Your task to perform on an android device: turn vacation reply on in the gmail app Image 0: 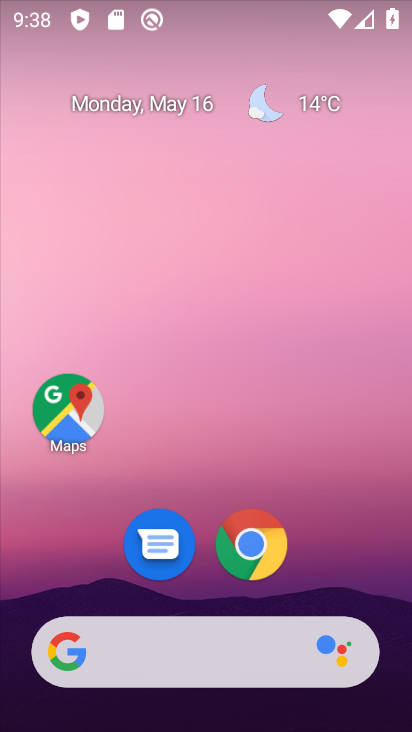
Step 0: drag from (328, 574) to (391, 110)
Your task to perform on an android device: turn vacation reply on in the gmail app Image 1: 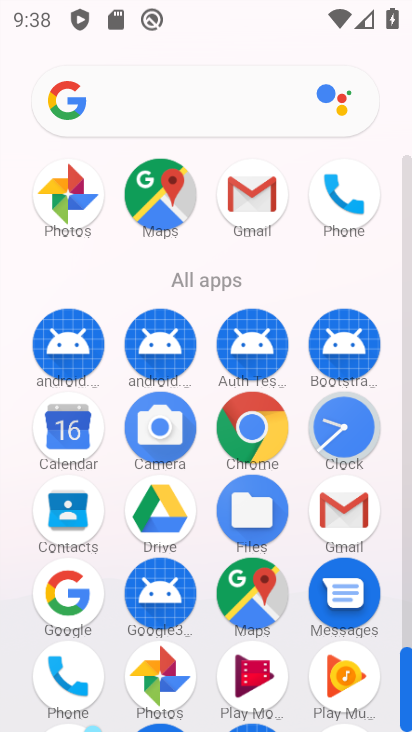
Step 1: click (248, 209)
Your task to perform on an android device: turn vacation reply on in the gmail app Image 2: 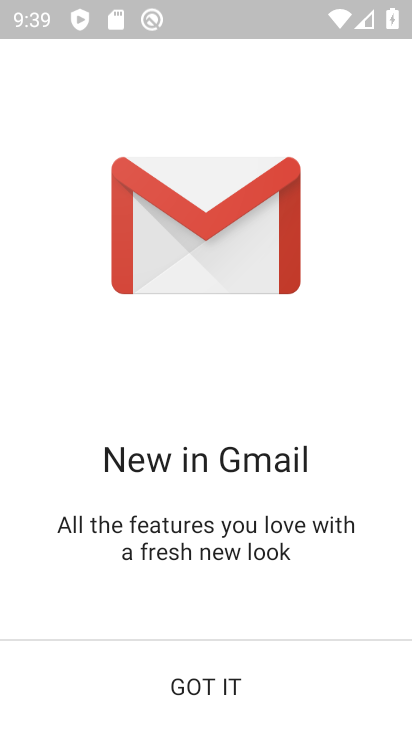
Step 2: click (213, 687)
Your task to perform on an android device: turn vacation reply on in the gmail app Image 3: 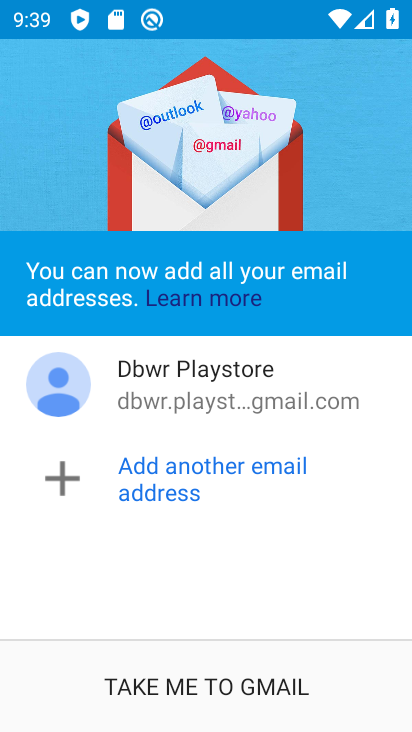
Step 3: click (214, 686)
Your task to perform on an android device: turn vacation reply on in the gmail app Image 4: 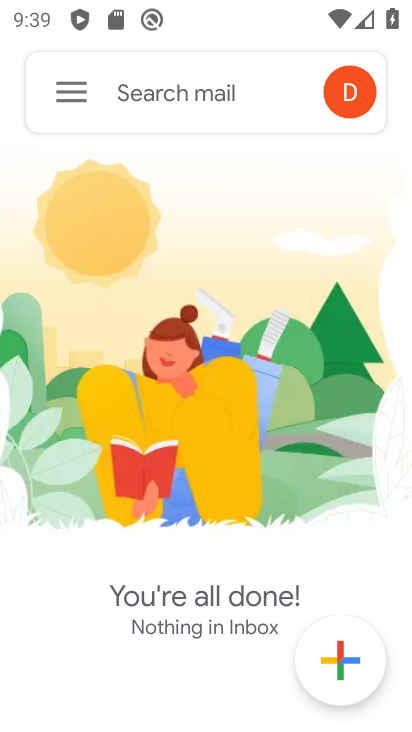
Step 4: click (76, 96)
Your task to perform on an android device: turn vacation reply on in the gmail app Image 5: 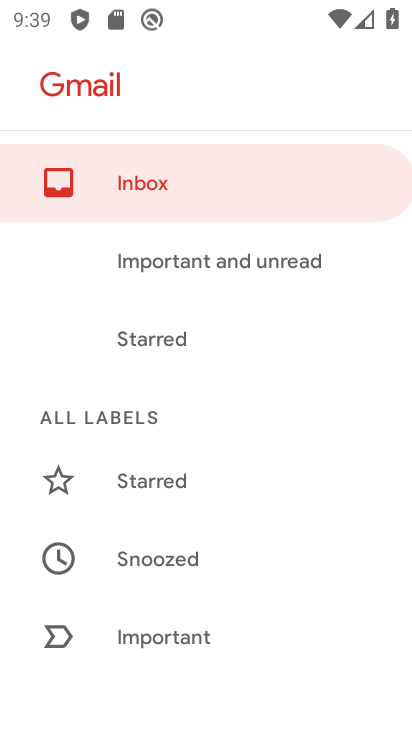
Step 5: drag from (137, 643) to (173, 165)
Your task to perform on an android device: turn vacation reply on in the gmail app Image 6: 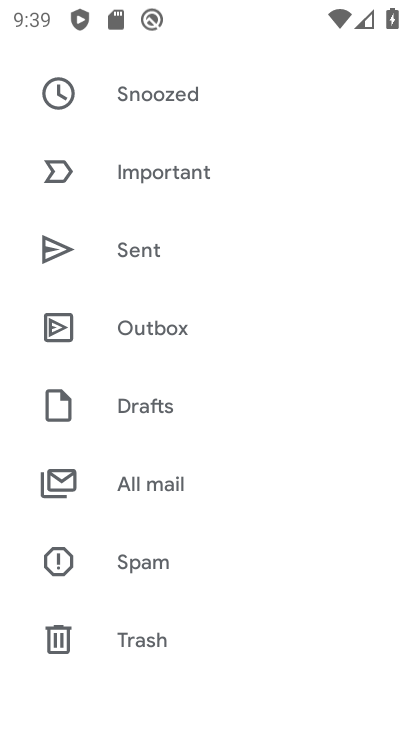
Step 6: drag from (161, 622) to (219, 234)
Your task to perform on an android device: turn vacation reply on in the gmail app Image 7: 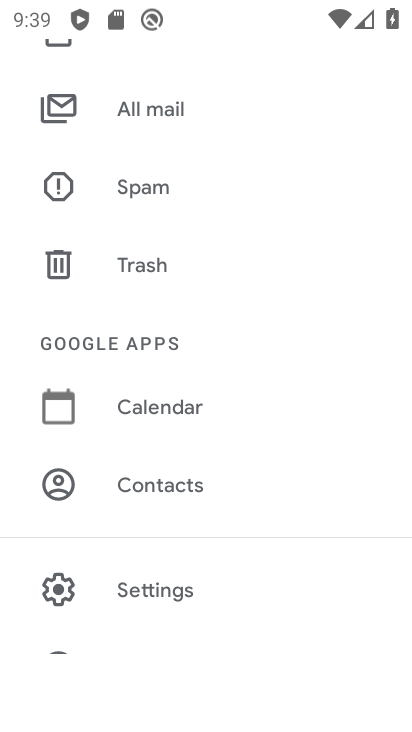
Step 7: click (165, 586)
Your task to perform on an android device: turn vacation reply on in the gmail app Image 8: 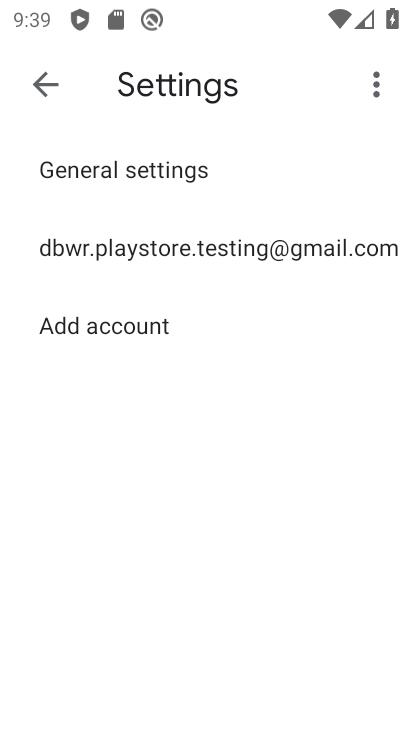
Step 8: click (121, 253)
Your task to perform on an android device: turn vacation reply on in the gmail app Image 9: 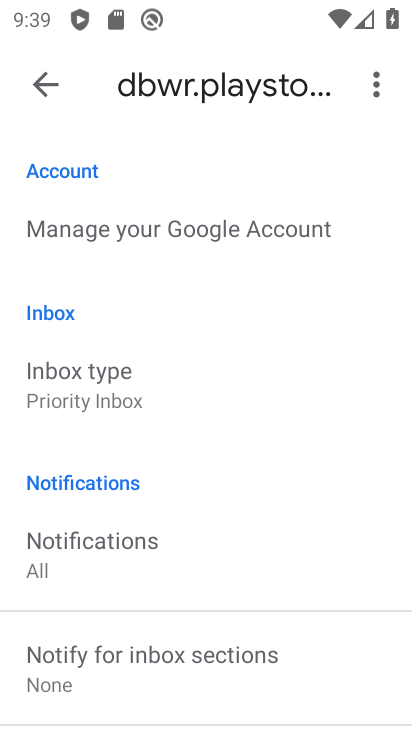
Step 9: drag from (139, 610) to (147, 322)
Your task to perform on an android device: turn vacation reply on in the gmail app Image 10: 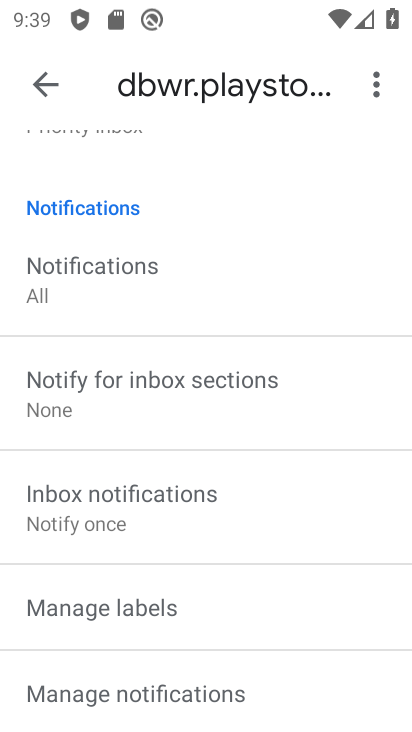
Step 10: drag from (193, 651) to (222, 263)
Your task to perform on an android device: turn vacation reply on in the gmail app Image 11: 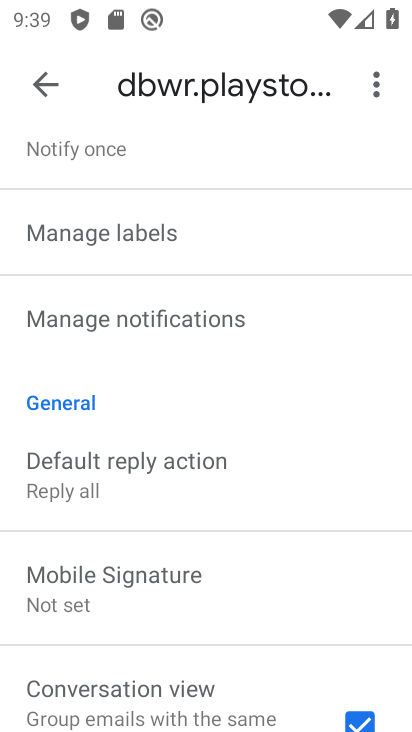
Step 11: drag from (228, 478) to (260, 197)
Your task to perform on an android device: turn vacation reply on in the gmail app Image 12: 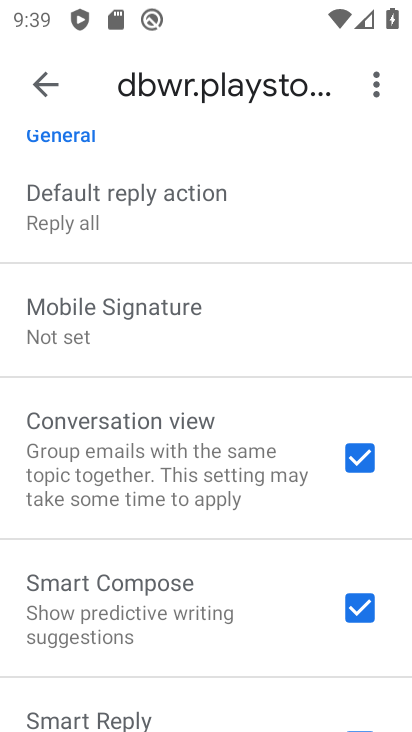
Step 12: drag from (170, 555) to (260, 207)
Your task to perform on an android device: turn vacation reply on in the gmail app Image 13: 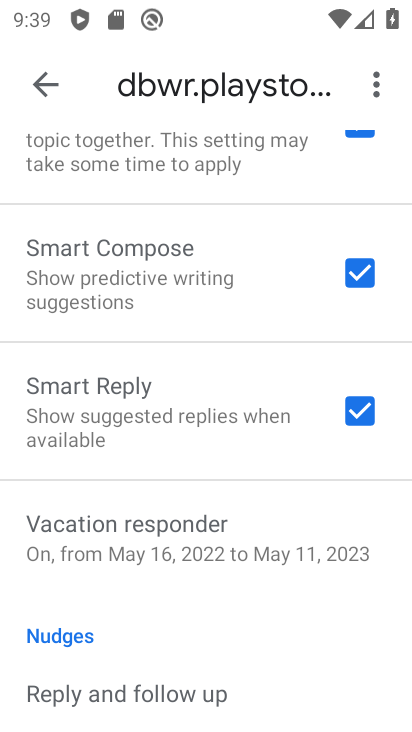
Step 13: drag from (230, 617) to (236, 506)
Your task to perform on an android device: turn vacation reply on in the gmail app Image 14: 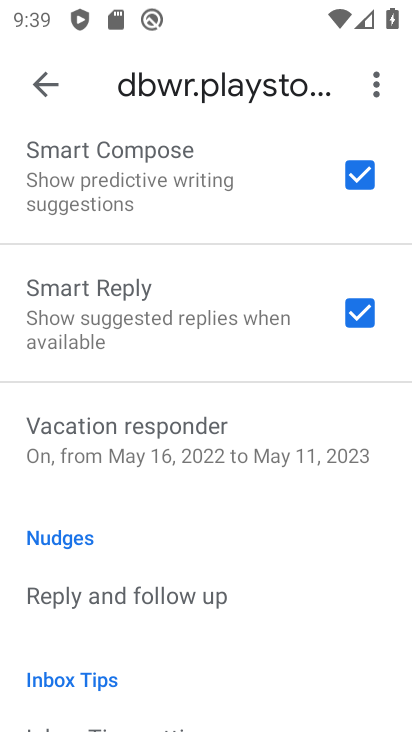
Step 14: click (230, 454)
Your task to perform on an android device: turn vacation reply on in the gmail app Image 15: 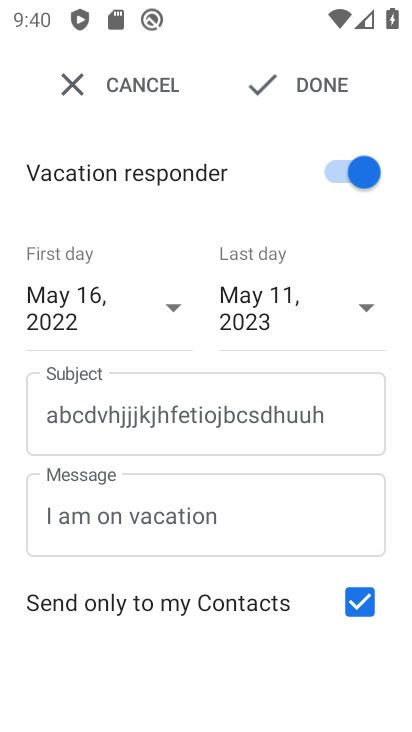
Step 15: click (289, 85)
Your task to perform on an android device: turn vacation reply on in the gmail app Image 16: 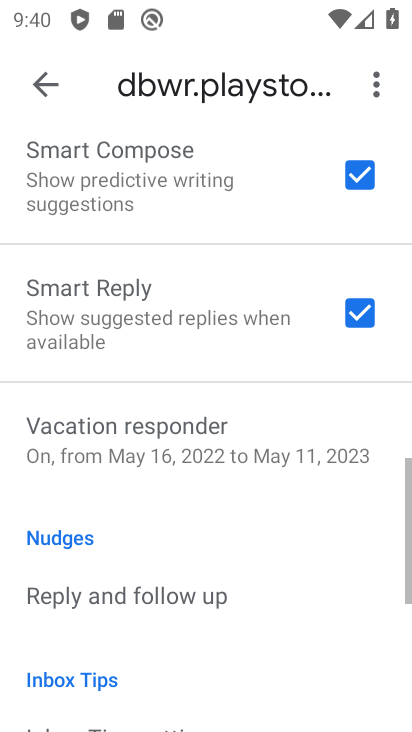
Step 16: task complete